Your task to perform on an android device: Go to Maps Image 0: 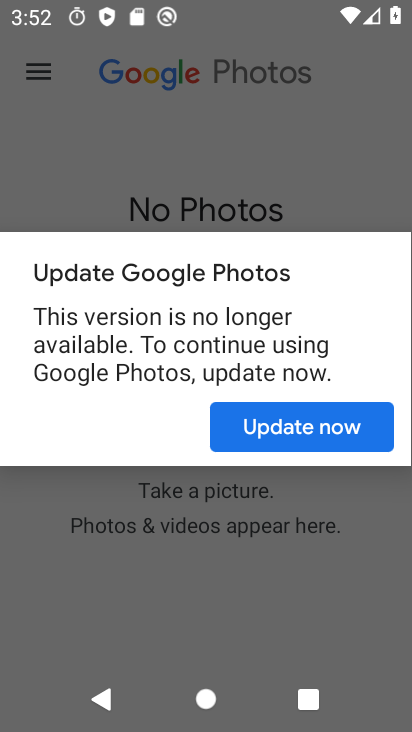
Step 0: press back button
Your task to perform on an android device: Go to Maps Image 1: 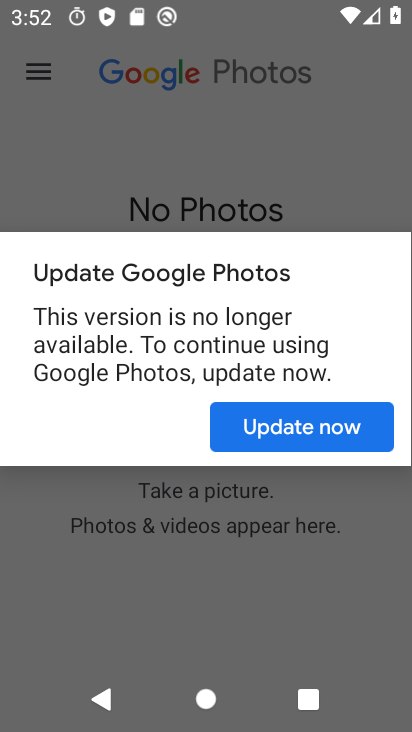
Step 1: press home button
Your task to perform on an android device: Go to Maps Image 2: 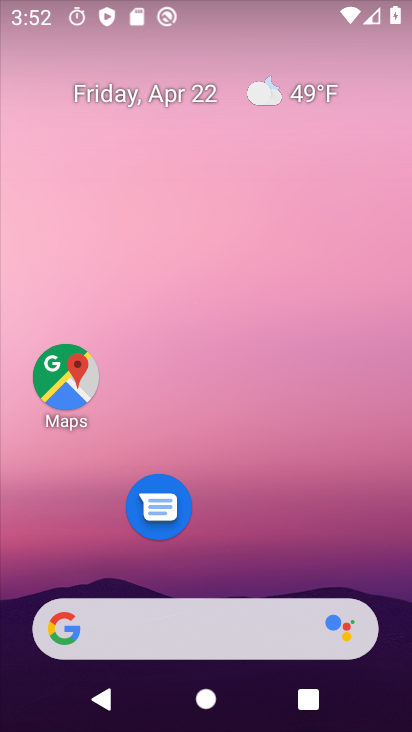
Step 2: click (83, 377)
Your task to perform on an android device: Go to Maps Image 3: 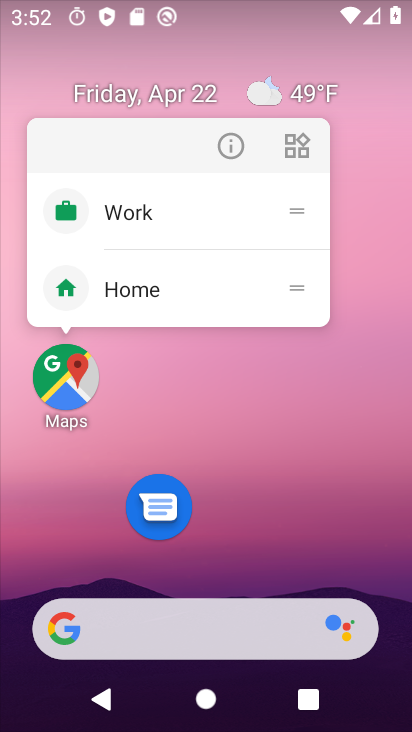
Step 3: click (55, 379)
Your task to perform on an android device: Go to Maps Image 4: 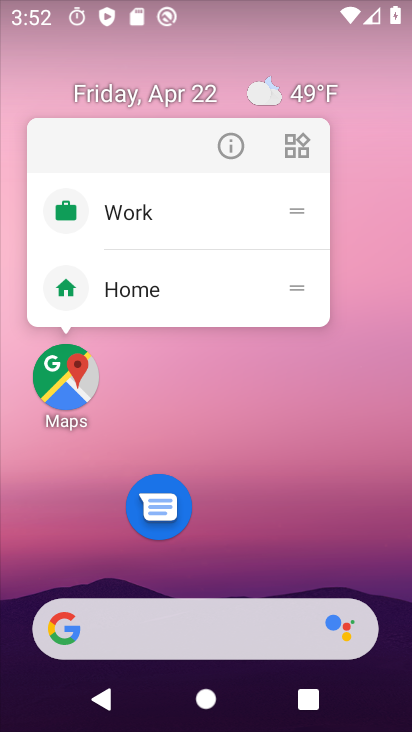
Step 4: click (72, 376)
Your task to perform on an android device: Go to Maps Image 5: 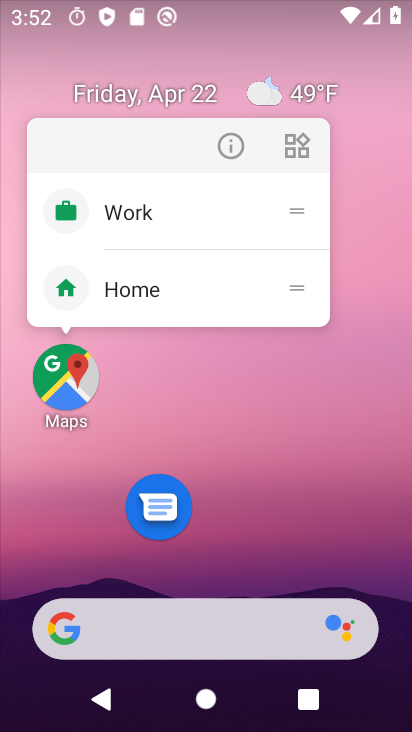
Step 5: click (72, 376)
Your task to perform on an android device: Go to Maps Image 6: 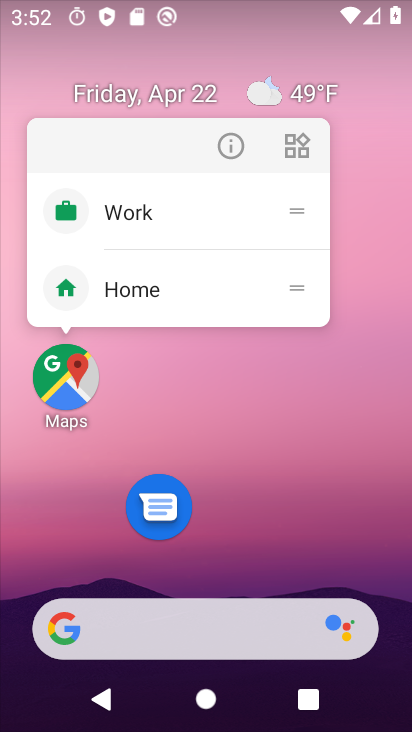
Step 6: click (67, 378)
Your task to perform on an android device: Go to Maps Image 7: 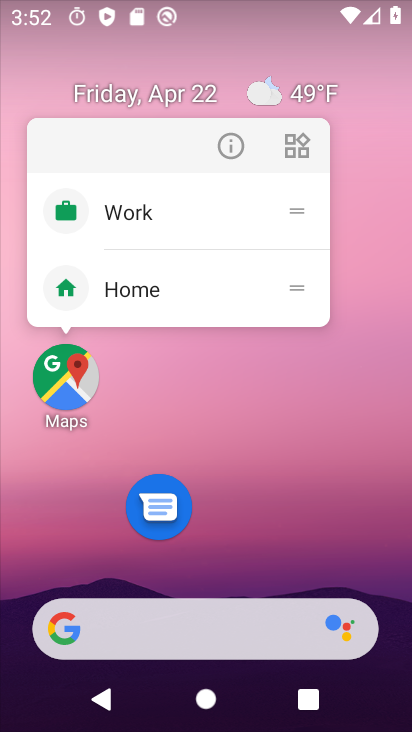
Step 7: click (69, 377)
Your task to perform on an android device: Go to Maps Image 8: 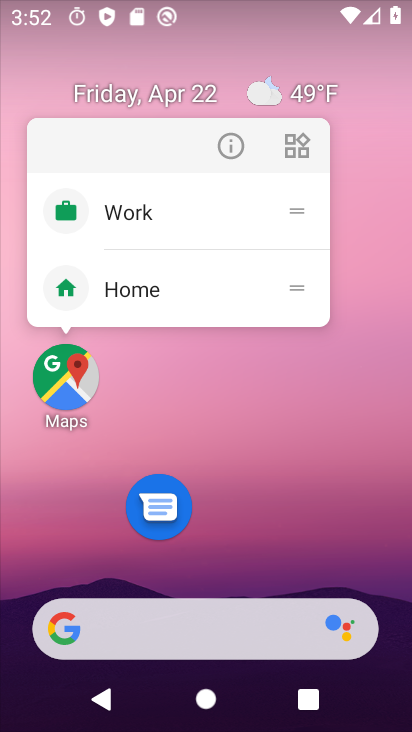
Step 8: click (71, 380)
Your task to perform on an android device: Go to Maps Image 9: 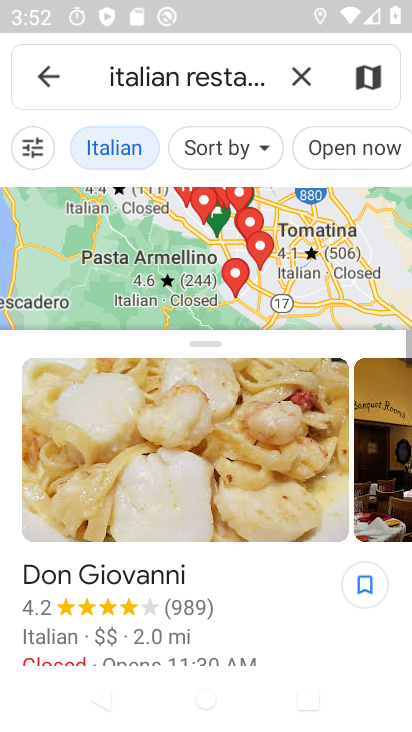
Step 9: task complete